Your task to perform on an android device: Open the stopwatch Image 0: 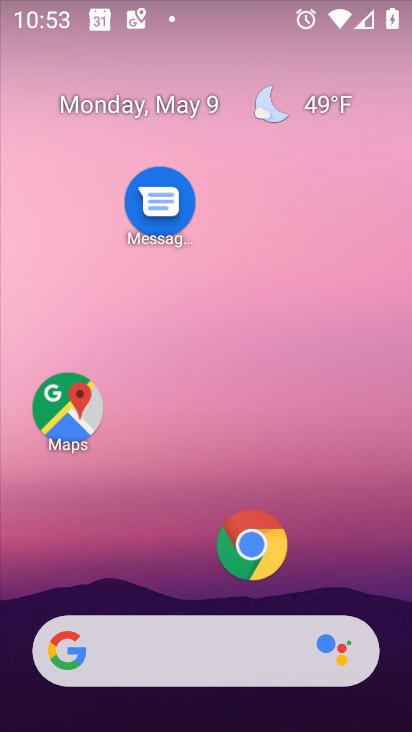
Step 0: drag from (101, 596) to (229, 63)
Your task to perform on an android device: Open the stopwatch Image 1: 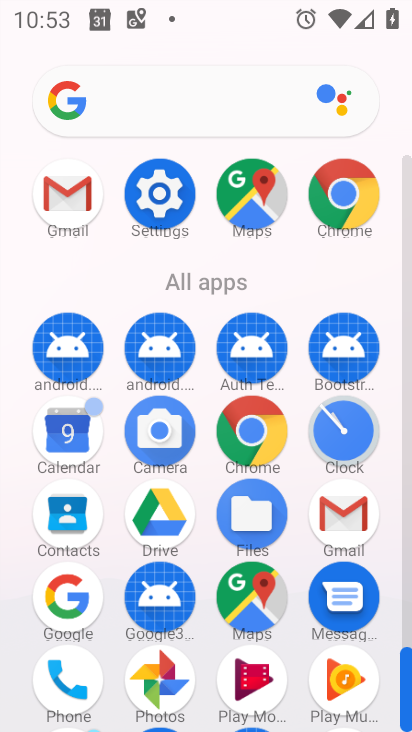
Step 1: click (324, 444)
Your task to perform on an android device: Open the stopwatch Image 2: 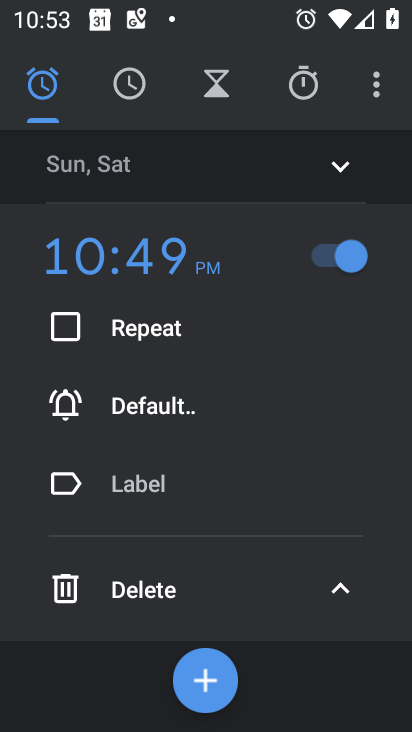
Step 2: click (292, 91)
Your task to perform on an android device: Open the stopwatch Image 3: 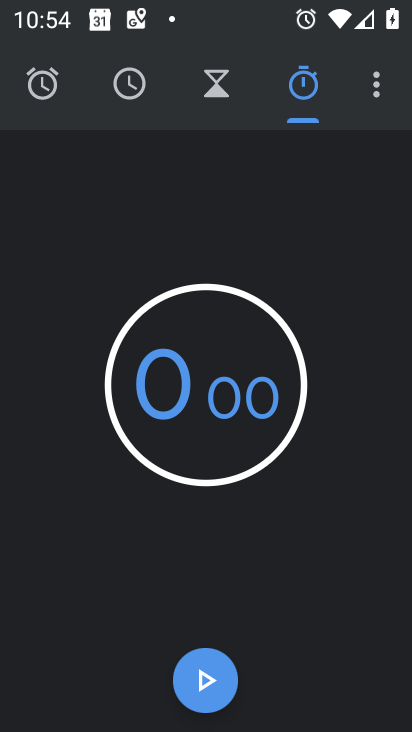
Step 3: task complete